Your task to perform on an android device: change the clock display to digital Image 0: 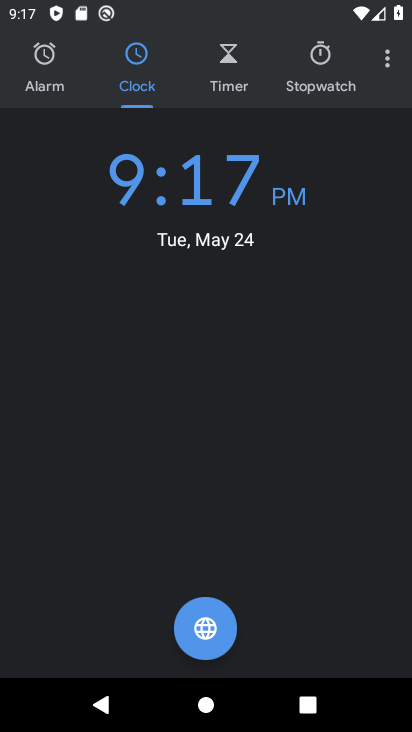
Step 0: press home button
Your task to perform on an android device: change the clock display to digital Image 1: 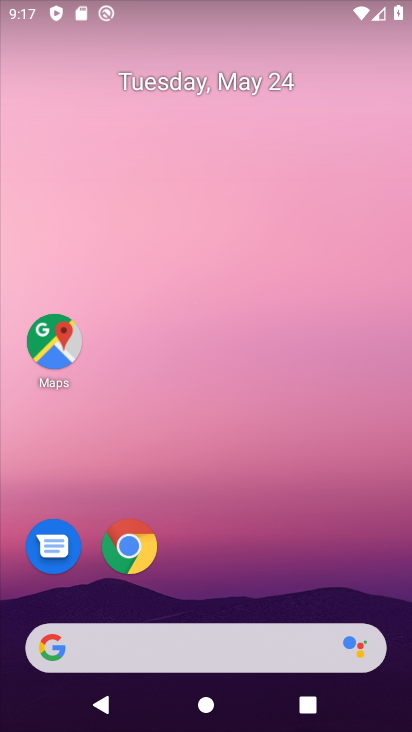
Step 1: drag from (263, 477) to (236, 35)
Your task to perform on an android device: change the clock display to digital Image 2: 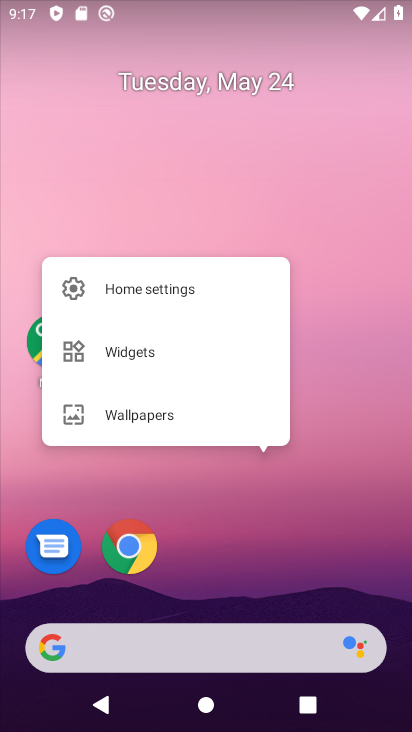
Step 2: click (313, 210)
Your task to perform on an android device: change the clock display to digital Image 3: 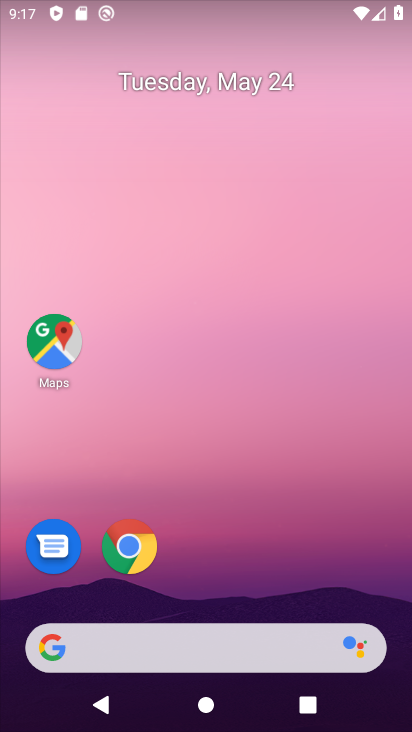
Step 3: drag from (268, 550) to (241, 66)
Your task to perform on an android device: change the clock display to digital Image 4: 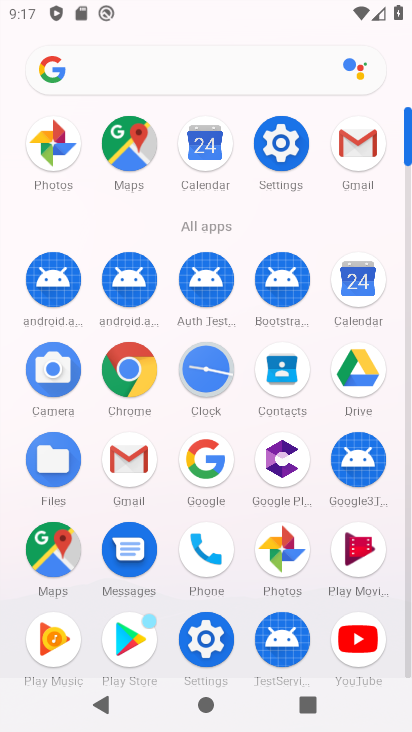
Step 4: click (208, 369)
Your task to perform on an android device: change the clock display to digital Image 5: 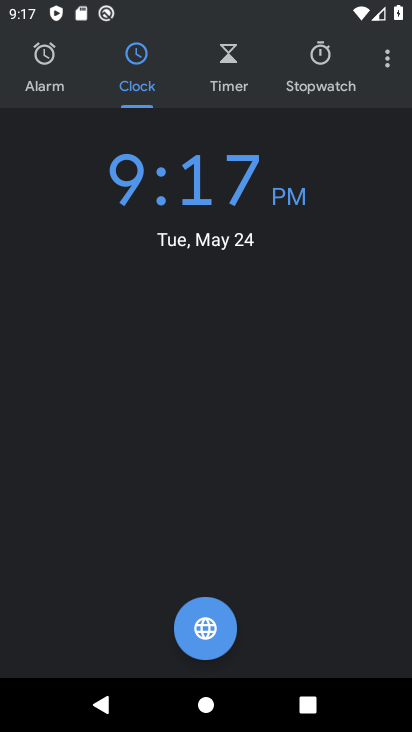
Step 5: click (384, 54)
Your task to perform on an android device: change the clock display to digital Image 6: 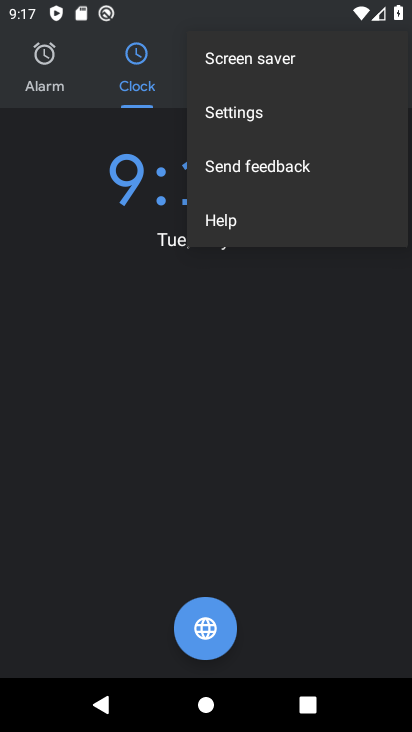
Step 6: click (243, 110)
Your task to perform on an android device: change the clock display to digital Image 7: 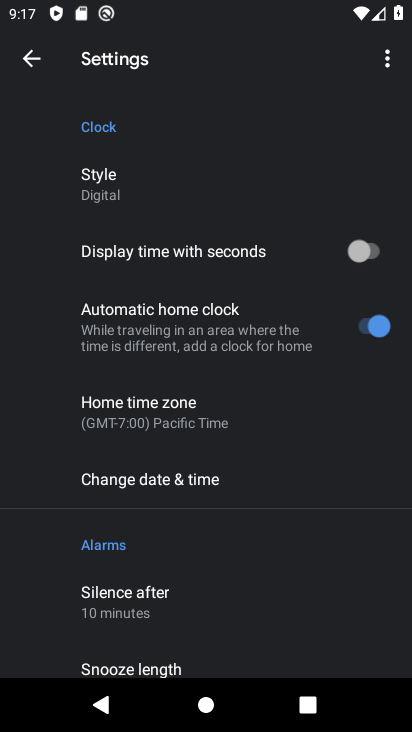
Step 7: task complete